Your task to perform on an android device: What's the weather going to be this weekend? Image 0: 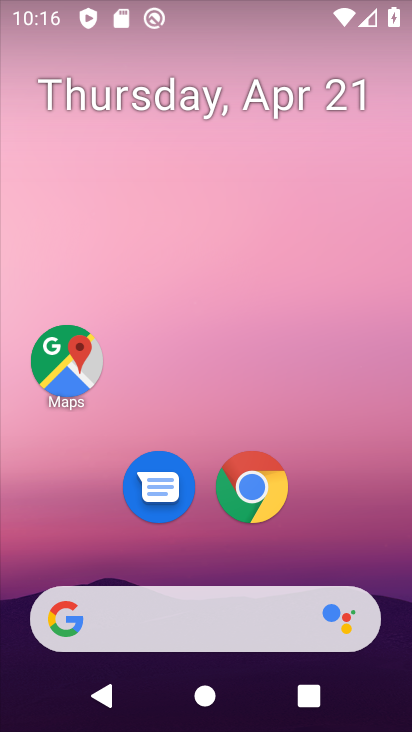
Step 0: drag from (335, 528) to (303, 83)
Your task to perform on an android device: What's the weather going to be this weekend? Image 1: 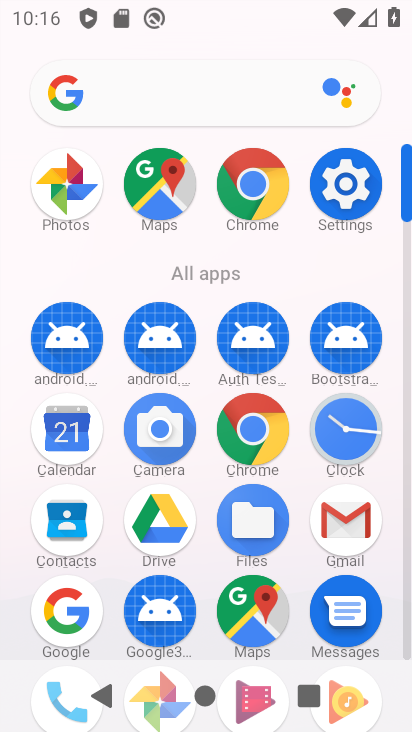
Step 1: click (265, 437)
Your task to perform on an android device: What's the weather going to be this weekend? Image 2: 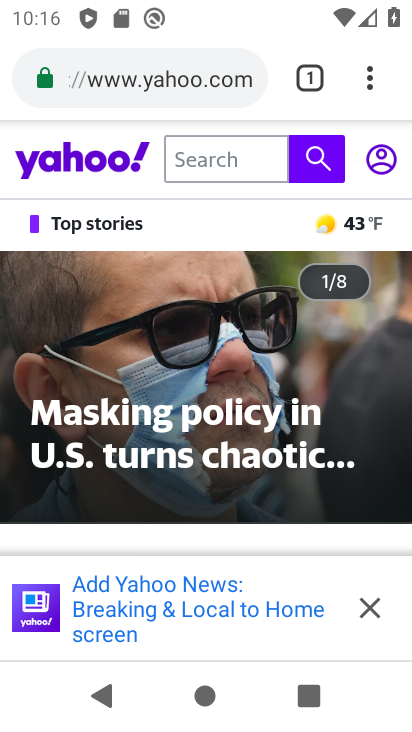
Step 2: click (316, 72)
Your task to perform on an android device: What's the weather going to be this weekend? Image 3: 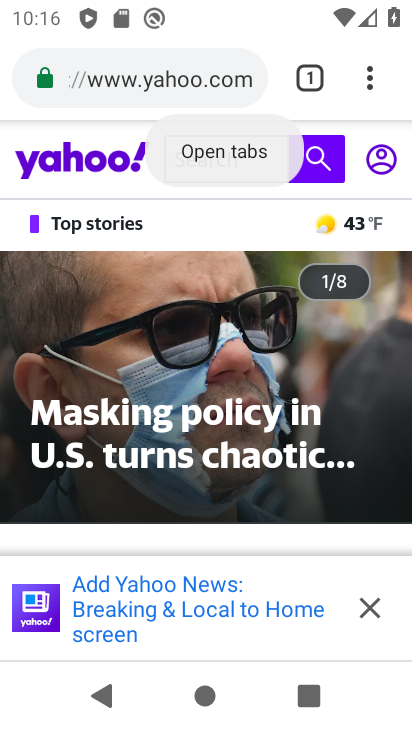
Step 3: drag from (316, 72) to (310, 114)
Your task to perform on an android device: What's the weather going to be this weekend? Image 4: 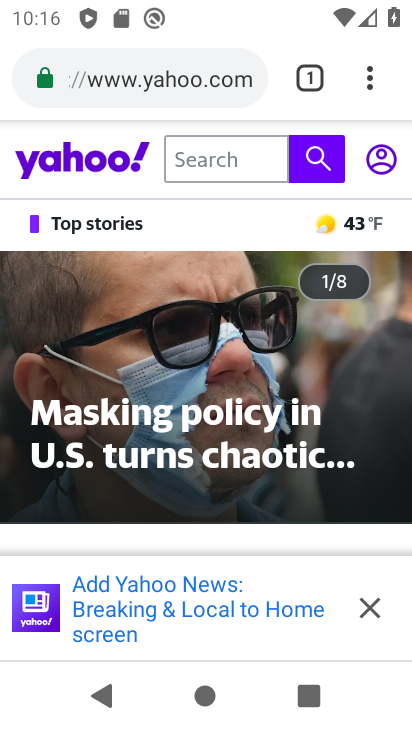
Step 4: drag from (375, 77) to (99, 153)
Your task to perform on an android device: What's the weather going to be this weekend? Image 5: 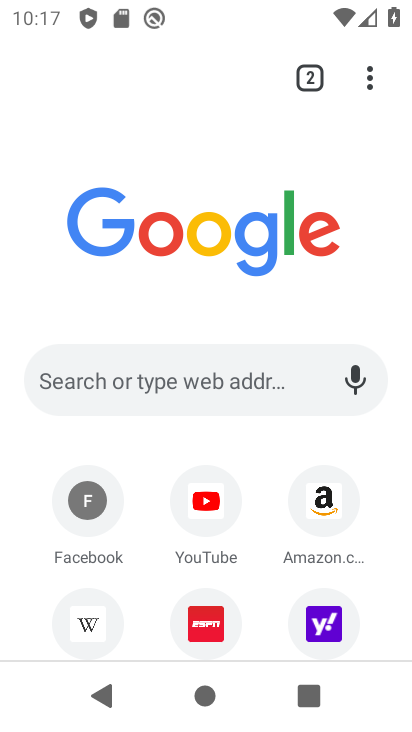
Step 5: click (261, 382)
Your task to perform on an android device: What's the weather going to be this weekend? Image 6: 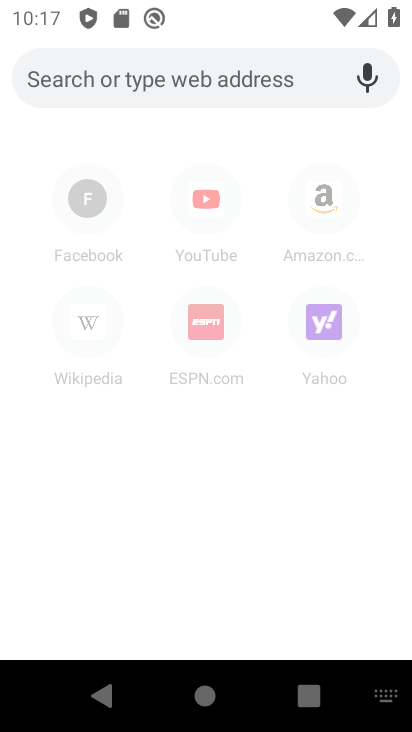
Step 6: type "What's the weather going to be this weekend?"
Your task to perform on an android device: What's the weather going to be this weekend? Image 7: 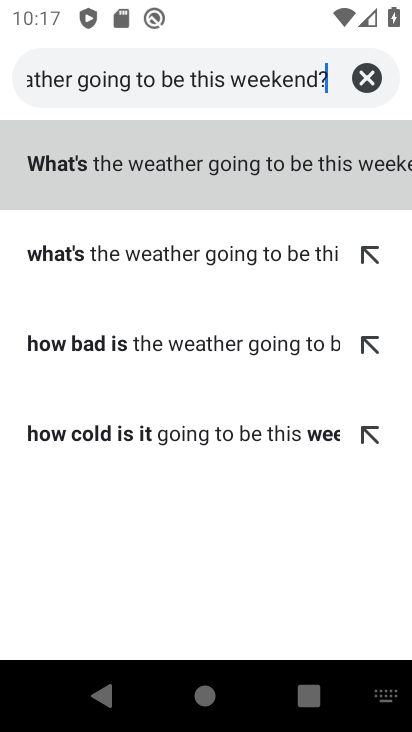
Step 7: click (217, 169)
Your task to perform on an android device: What's the weather going to be this weekend? Image 8: 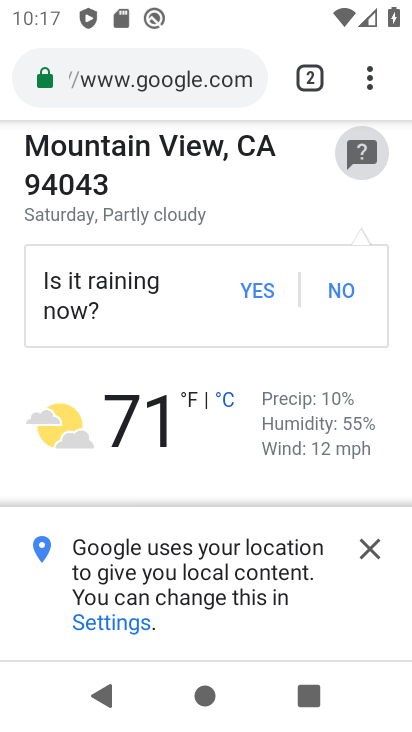
Step 8: task complete